Your task to perform on an android device: check storage Image 0: 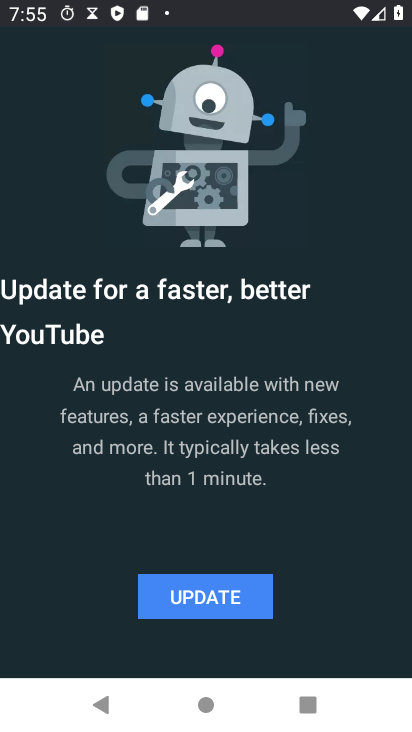
Step 0: press home button
Your task to perform on an android device: check storage Image 1: 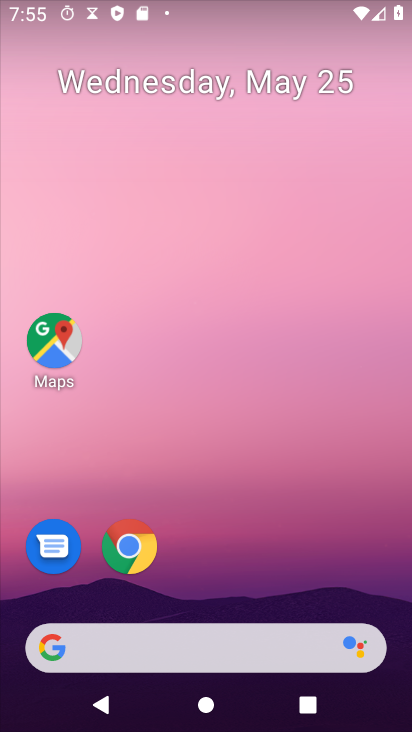
Step 1: drag from (206, 575) to (351, 1)
Your task to perform on an android device: check storage Image 2: 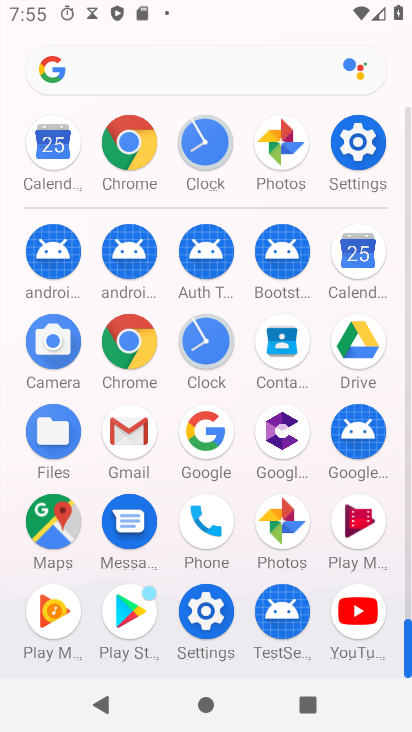
Step 2: click (365, 153)
Your task to perform on an android device: check storage Image 3: 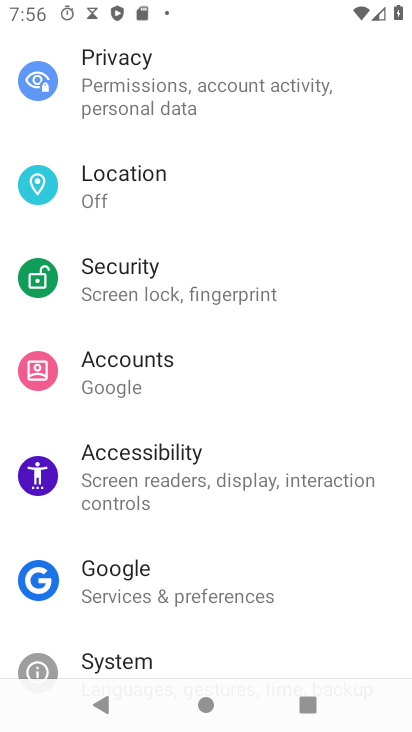
Step 3: drag from (192, 268) to (162, 547)
Your task to perform on an android device: check storage Image 4: 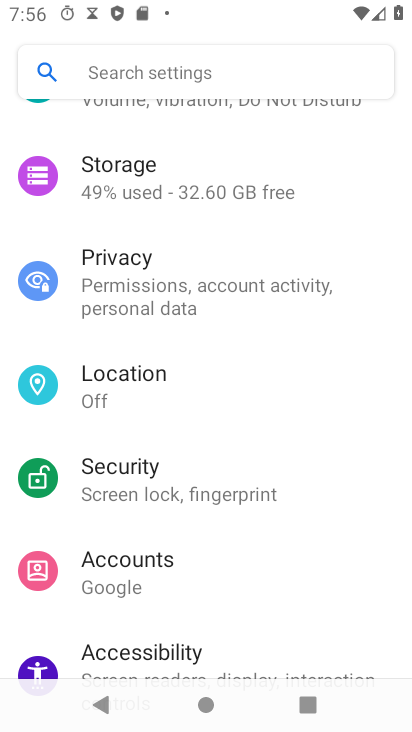
Step 4: click (146, 181)
Your task to perform on an android device: check storage Image 5: 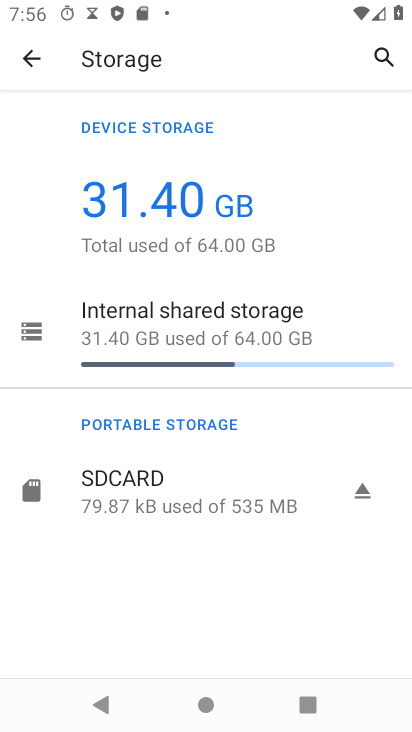
Step 5: task complete